Your task to perform on an android device: Search for Mexican restaurants on Maps Image 0: 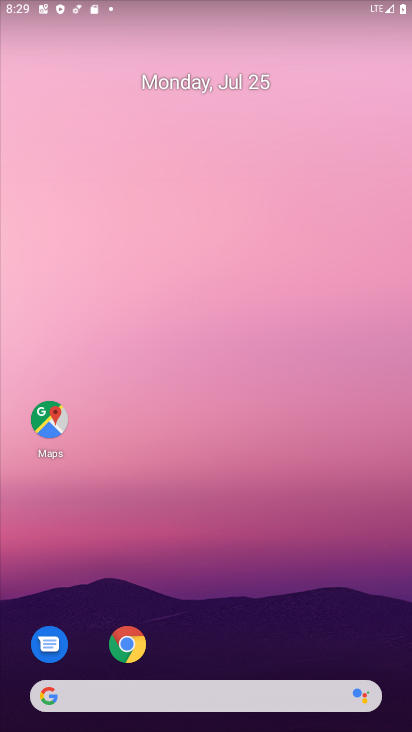
Step 0: drag from (279, 606) to (278, 186)
Your task to perform on an android device: Search for Mexican restaurants on Maps Image 1: 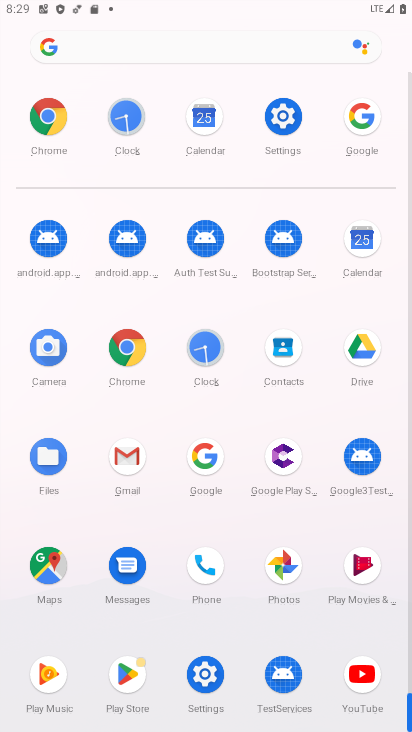
Step 1: click (63, 571)
Your task to perform on an android device: Search for Mexican restaurants on Maps Image 2: 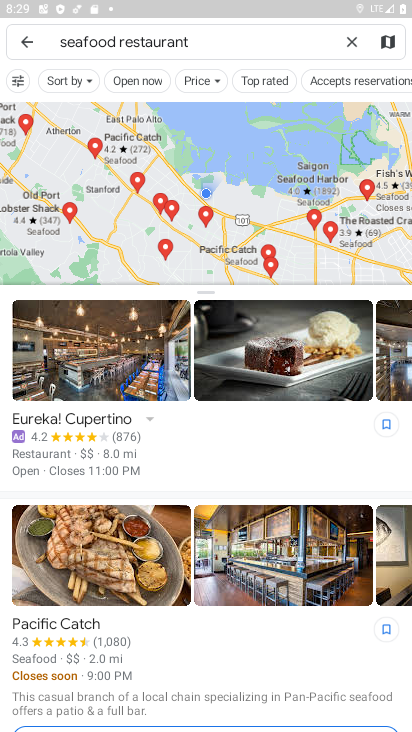
Step 2: drag from (130, 435) to (127, 345)
Your task to perform on an android device: Search for Mexican restaurants on Maps Image 3: 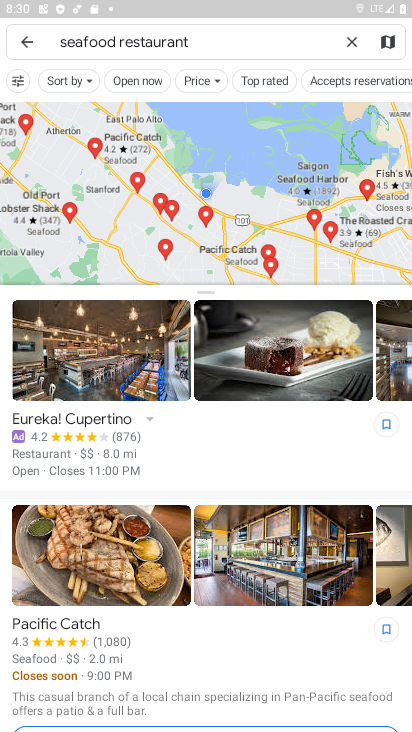
Step 3: click (351, 45)
Your task to perform on an android device: Search for Mexican restaurants on Maps Image 4: 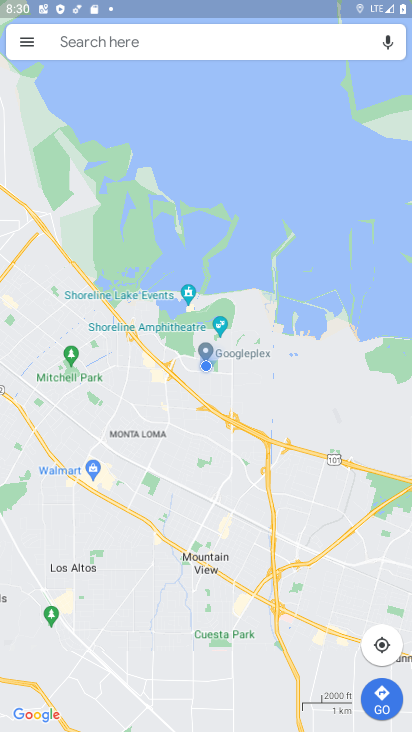
Step 4: click (122, 41)
Your task to perform on an android device: Search for Mexican restaurants on Maps Image 5: 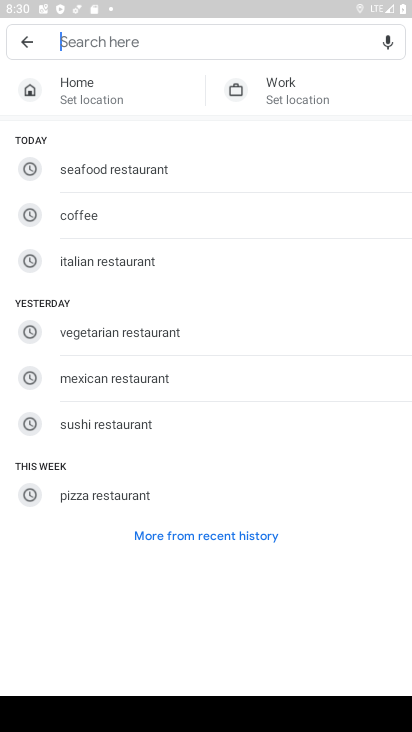
Step 5: click (158, 384)
Your task to perform on an android device: Search for Mexican restaurants on Maps Image 6: 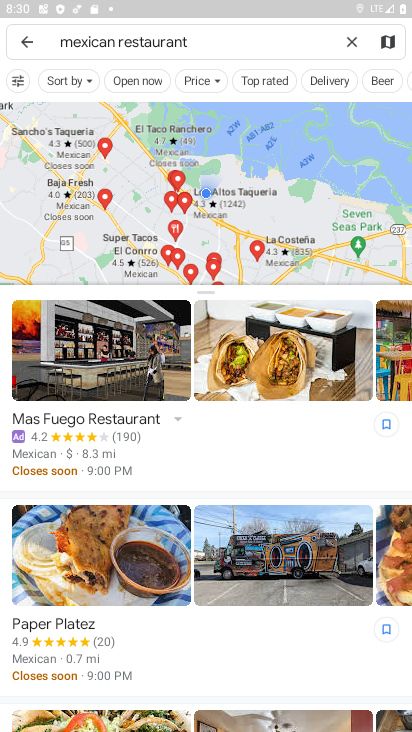
Step 6: task complete